Your task to perform on an android device: Open the phone app and click the voicemail tab. Image 0: 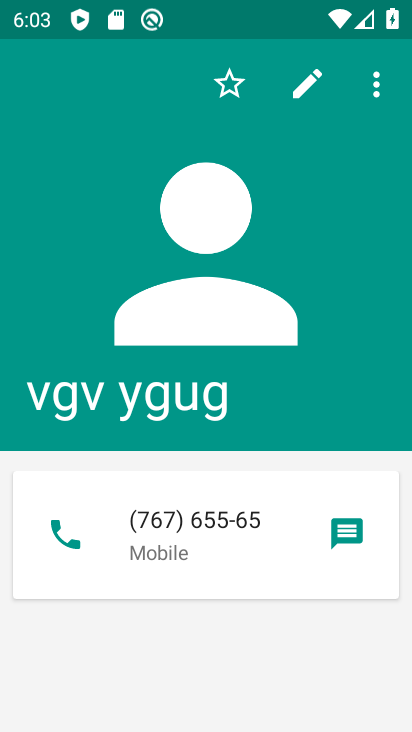
Step 0: press home button
Your task to perform on an android device: Open the phone app and click the voicemail tab. Image 1: 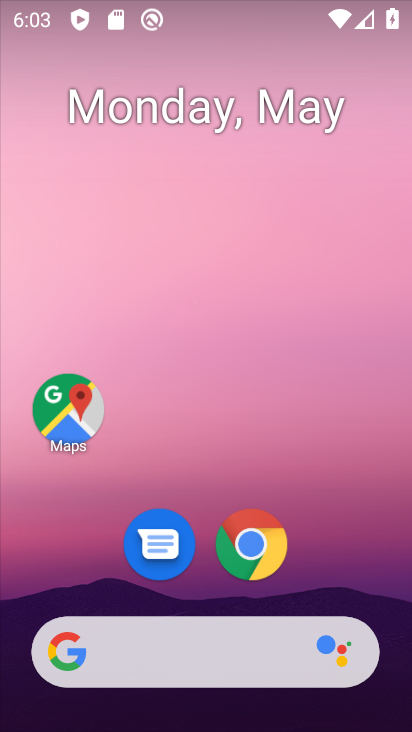
Step 1: drag from (353, 542) to (53, 16)
Your task to perform on an android device: Open the phone app and click the voicemail tab. Image 2: 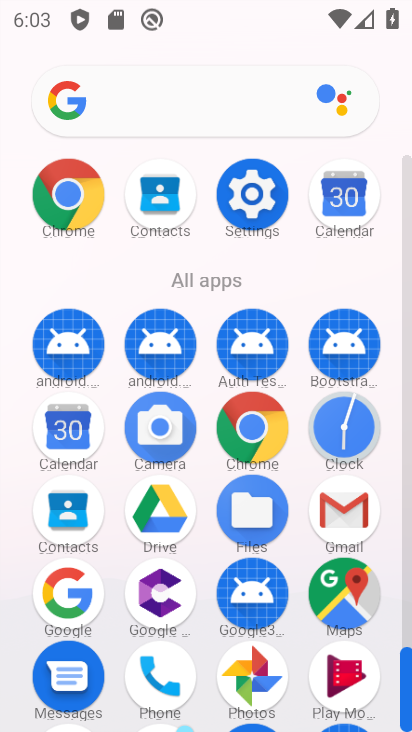
Step 2: click (170, 663)
Your task to perform on an android device: Open the phone app and click the voicemail tab. Image 3: 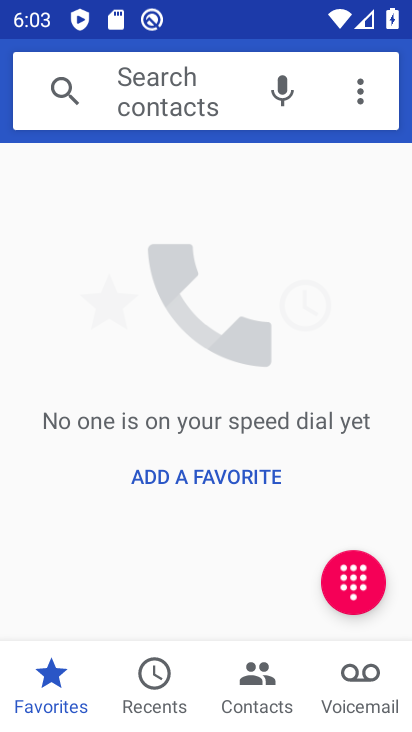
Step 3: click (372, 679)
Your task to perform on an android device: Open the phone app and click the voicemail tab. Image 4: 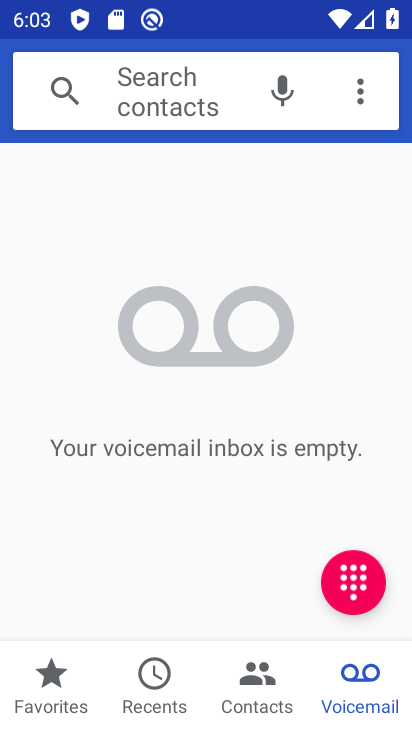
Step 4: task complete